Your task to perform on an android device: Open display settings Image 0: 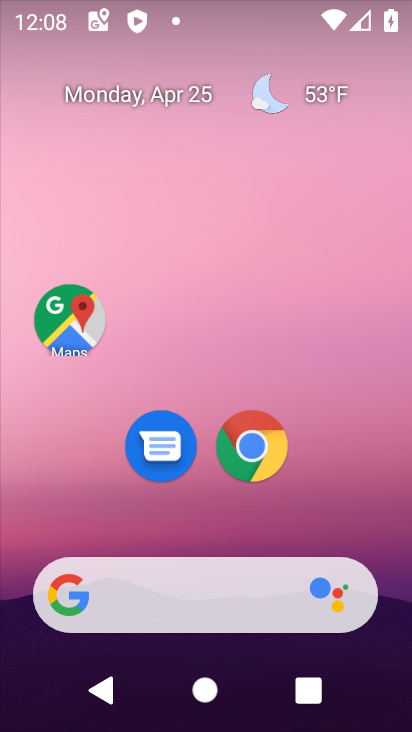
Step 0: drag from (213, 522) to (180, 0)
Your task to perform on an android device: Open display settings Image 1: 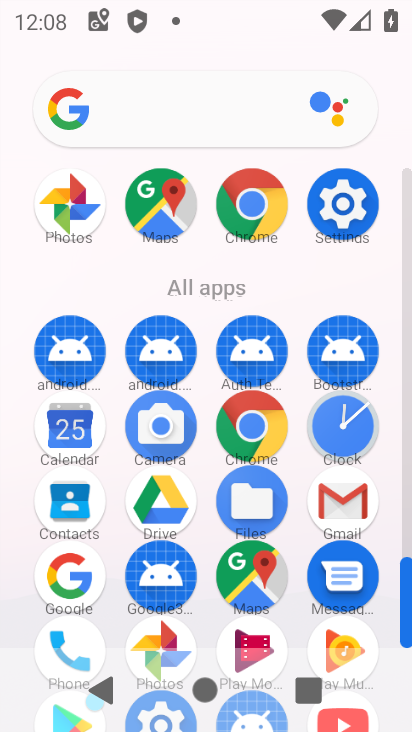
Step 1: click (351, 203)
Your task to perform on an android device: Open display settings Image 2: 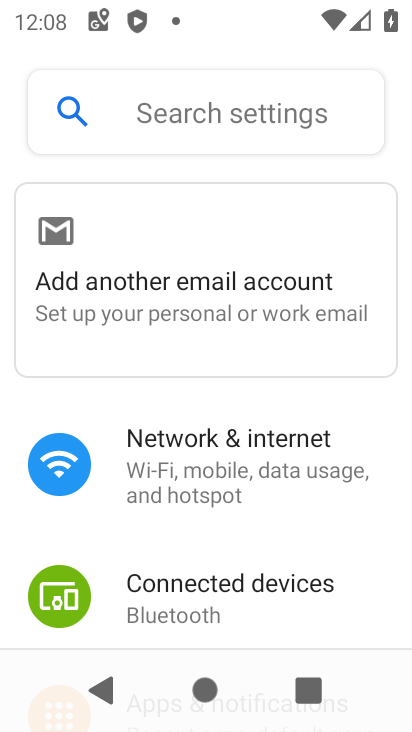
Step 2: drag from (204, 584) to (232, 237)
Your task to perform on an android device: Open display settings Image 3: 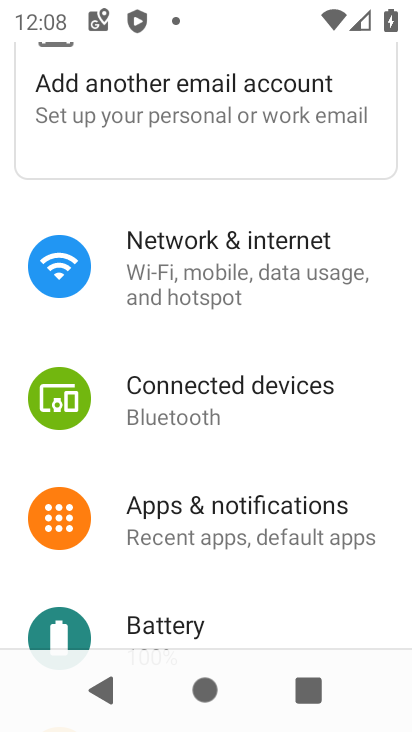
Step 3: drag from (188, 588) to (257, 74)
Your task to perform on an android device: Open display settings Image 4: 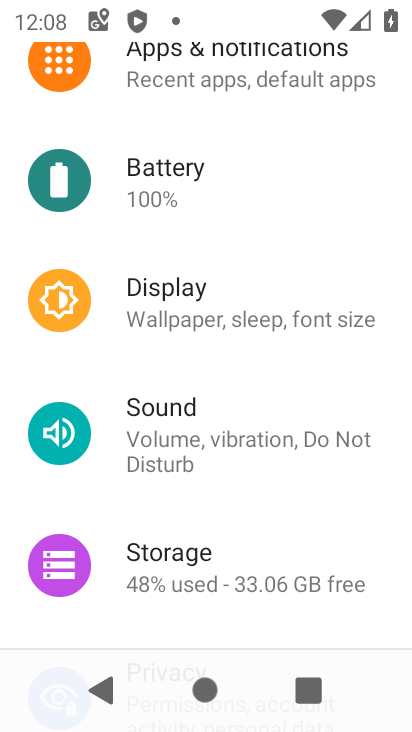
Step 4: click (194, 312)
Your task to perform on an android device: Open display settings Image 5: 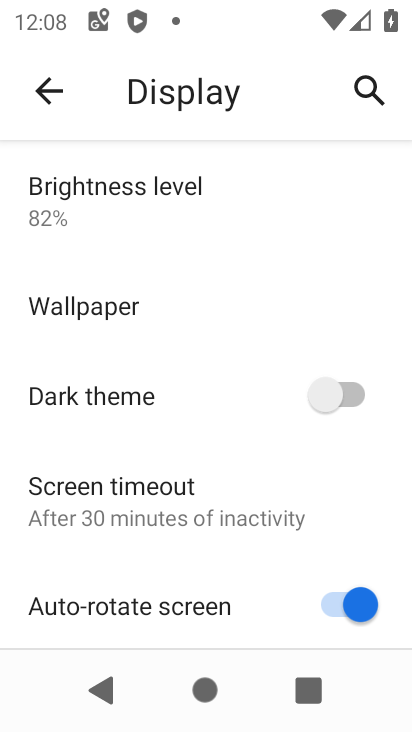
Step 5: task complete